Your task to perform on an android device: Go to privacy settings Image 0: 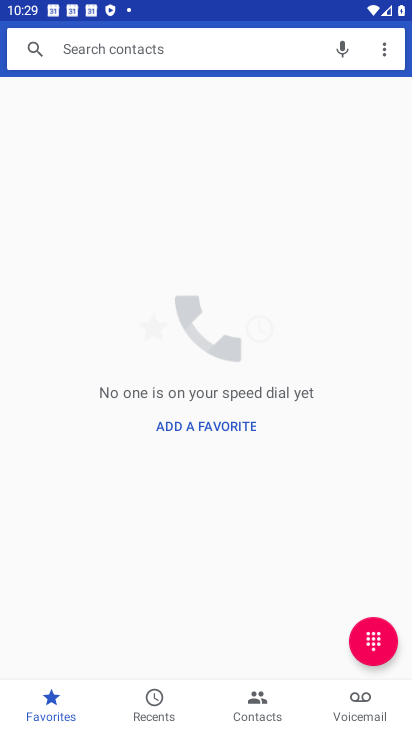
Step 0: press home button
Your task to perform on an android device: Go to privacy settings Image 1: 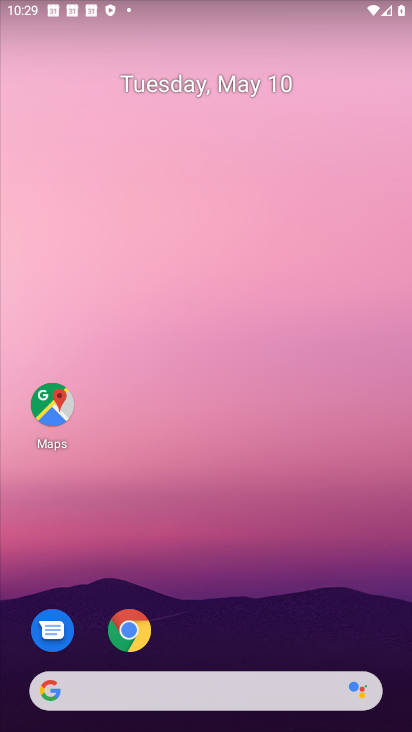
Step 1: drag from (195, 725) to (200, 149)
Your task to perform on an android device: Go to privacy settings Image 2: 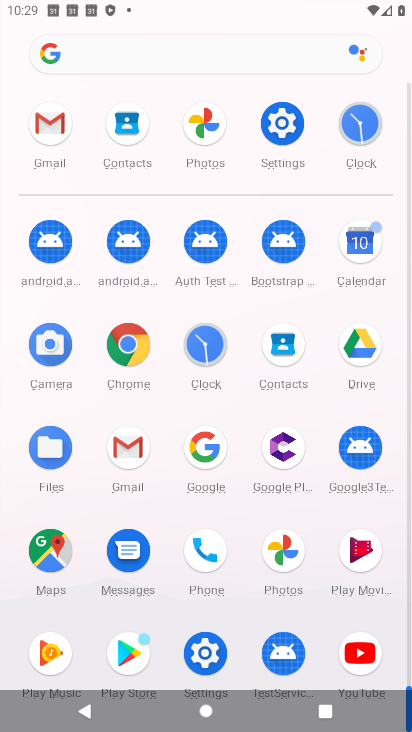
Step 2: click (302, 142)
Your task to perform on an android device: Go to privacy settings Image 3: 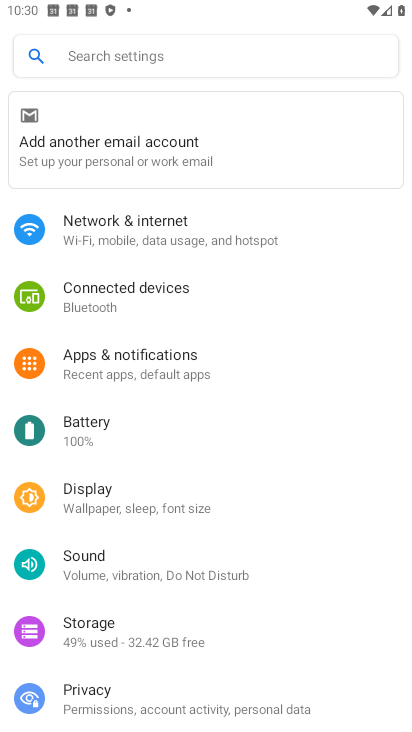
Step 3: click (172, 704)
Your task to perform on an android device: Go to privacy settings Image 4: 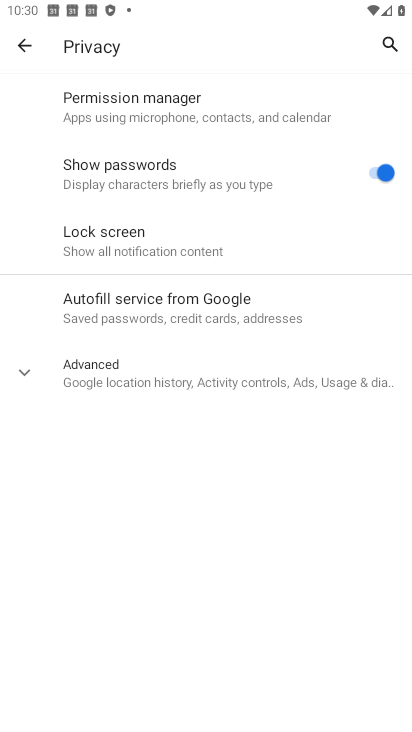
Step 4: task complete